Your task to perform on an android device: What's on my calendar tomorrow? Image 0: 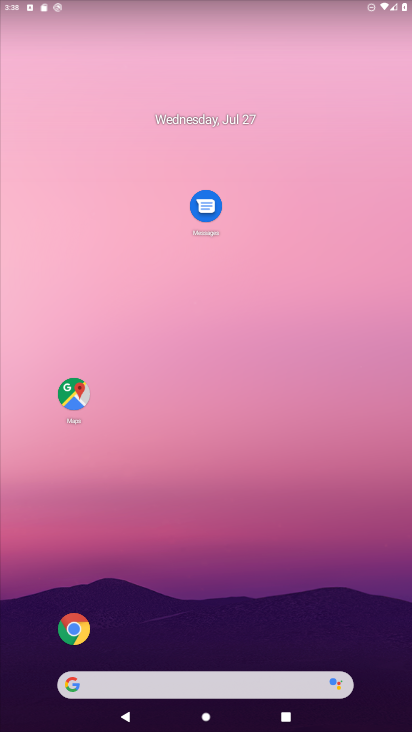
Step 0: click (173, 113)
Your task to perform on an android device: What's on my calendar tomorrow? Image 1: 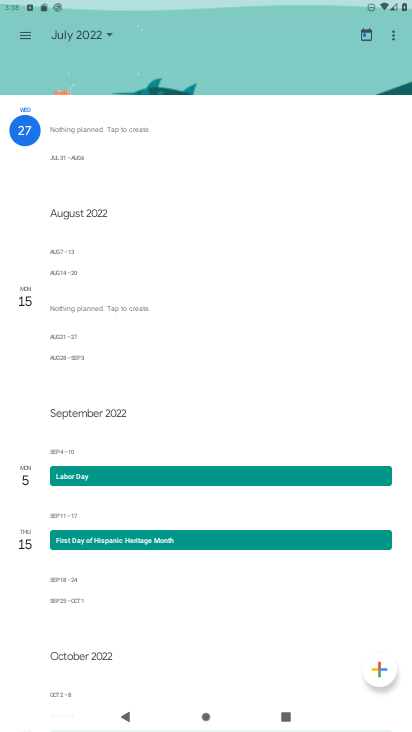
Step 1: click (77, 30)
Your task to perform on an android device: What's on my calendar tomorrow? Image 2: 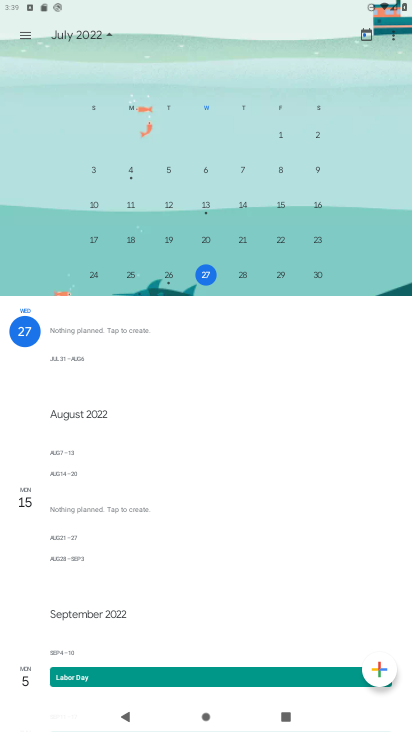
Step 2: click (241, 281)
Your task to perform on an android device: What's on my calendar tomorrow? Image 3: 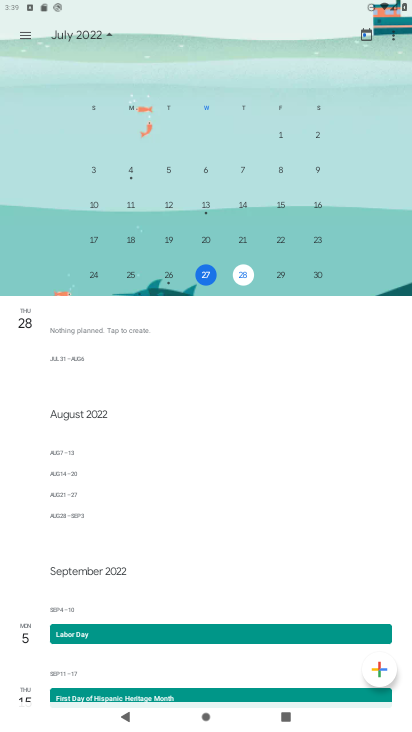
Step 3: task complete